Your task to perform on an android device: check storage Image 0: 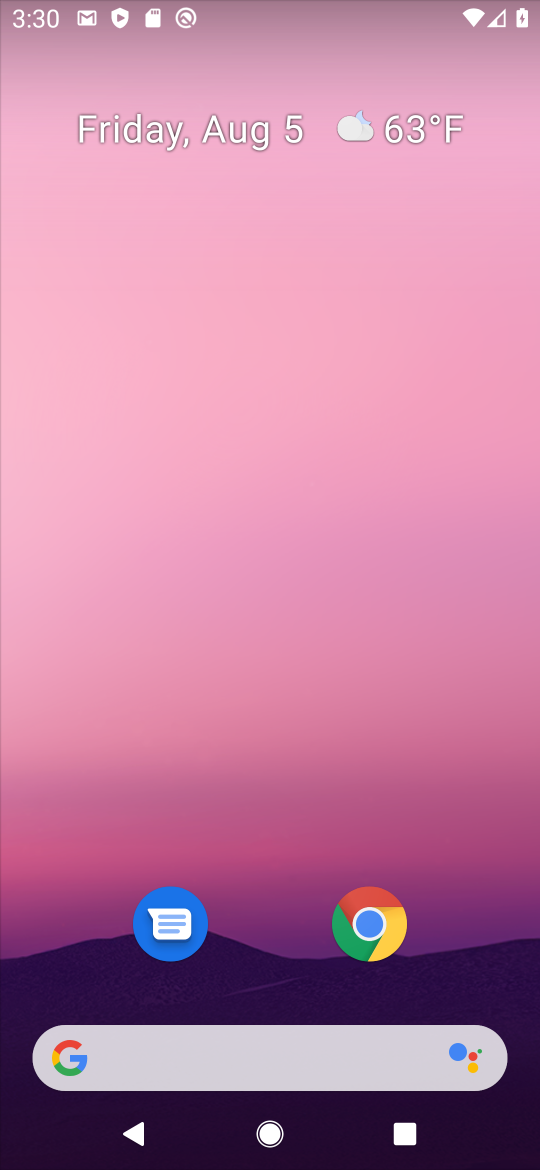
Step 0: drag from (252, 886) to (359, 238)
Your task to perform on an android device: check storage Image 1: 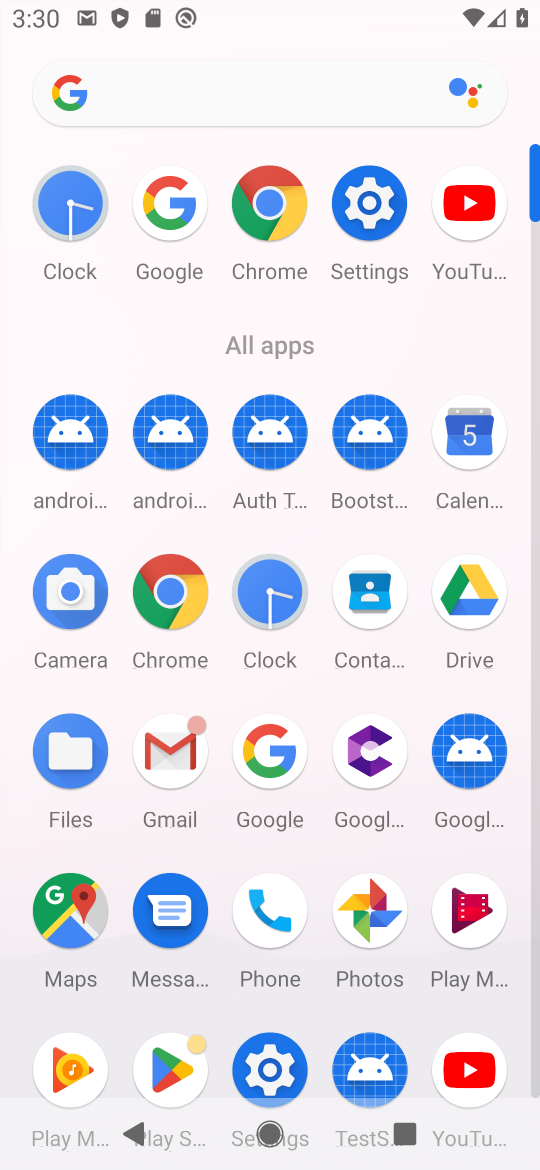
Step 1: click (283, 1048)
Your task to perform on an android device: check storage Image 2: 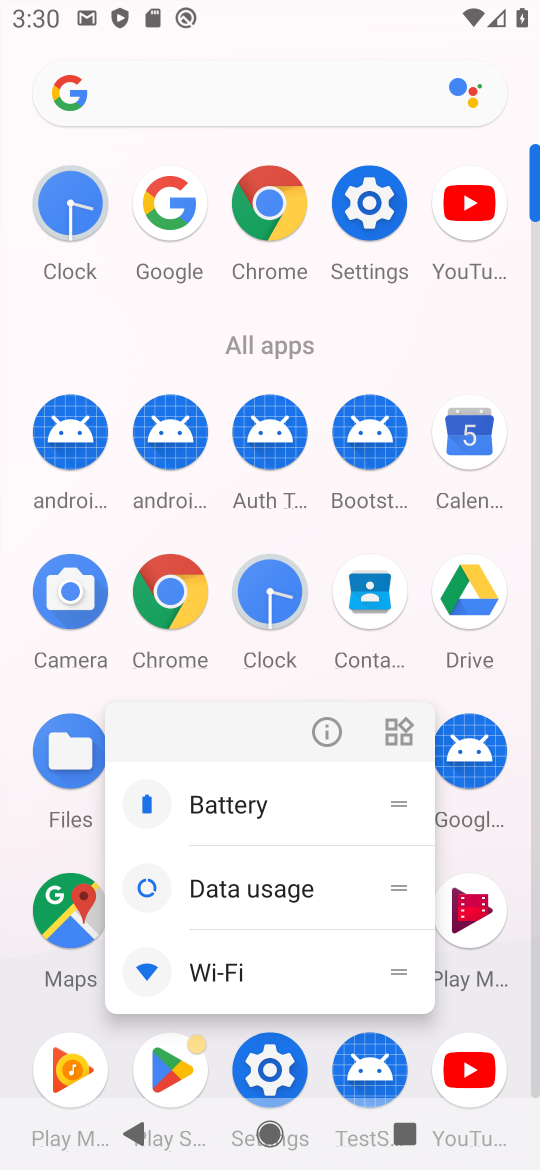
Step 2: click (268, 1060)
Your task to perform on an android device: check storage Image 3: 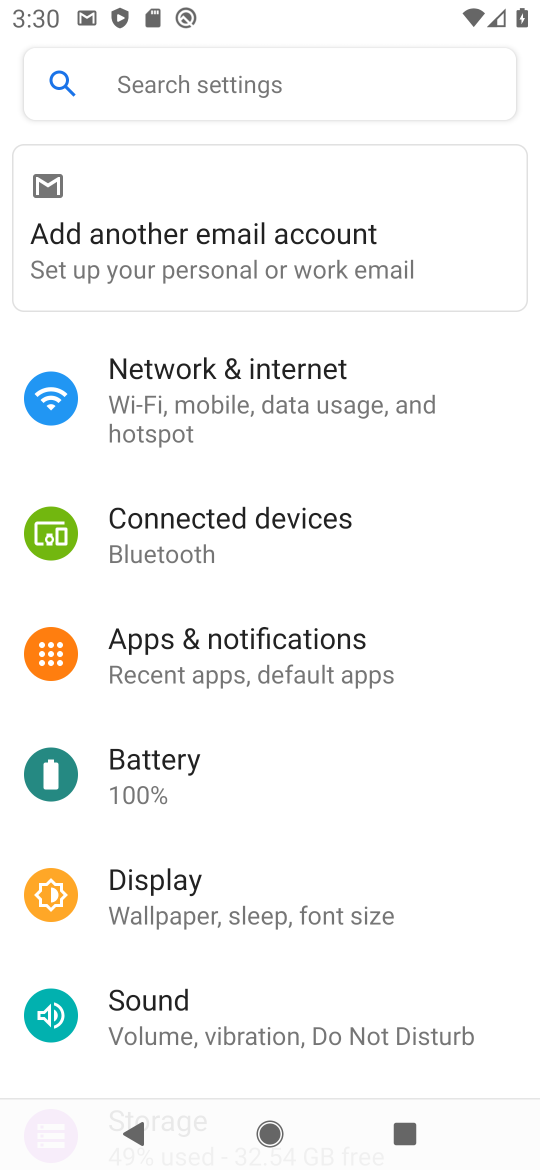
Step 3: drag from (237, 961) to (279, 304)
Your task to perform on an android device: check storage Image 4: 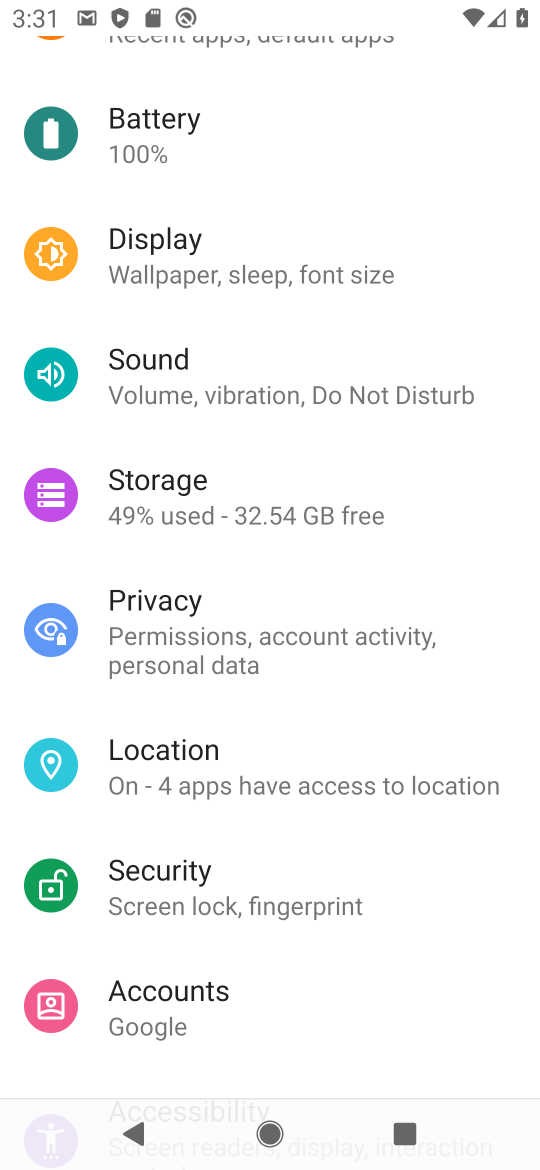
Step 4: click (232, 527)
Your task to perform on an android device: check storage Image 5: 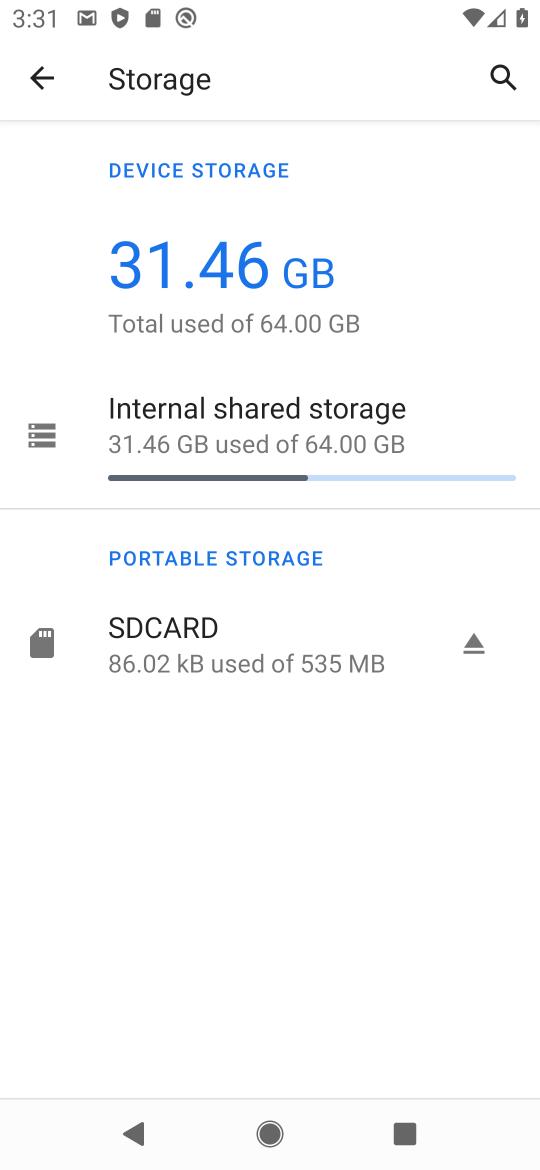
Step 5: click (405, 455)
Your task to perform on an android device: check storage Image 6: 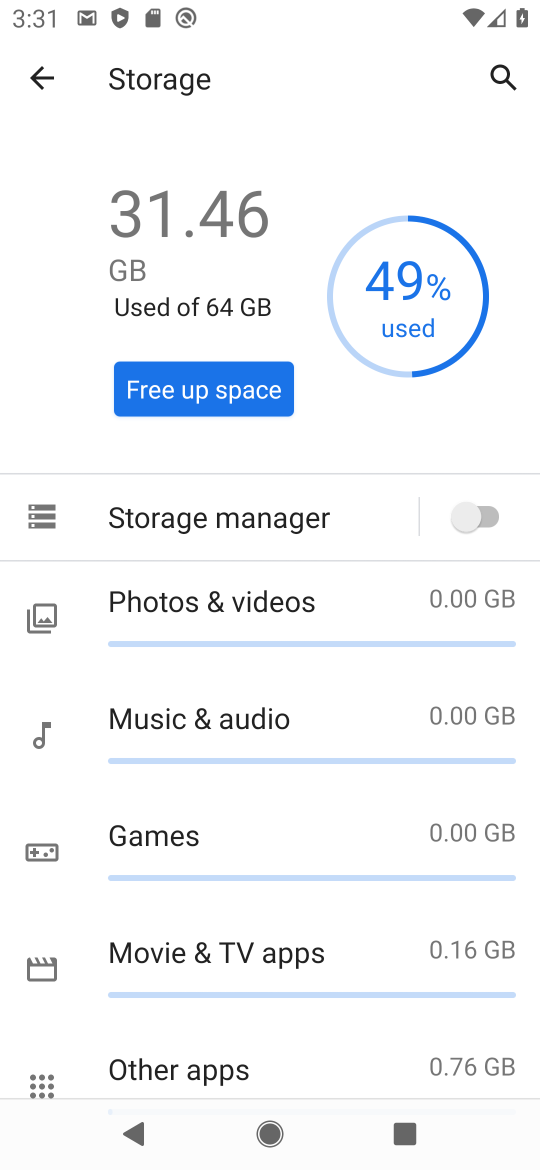
Step 6: task complete